Your task to perform on an android device: turn on priority inbox in the gmail app Image 0: 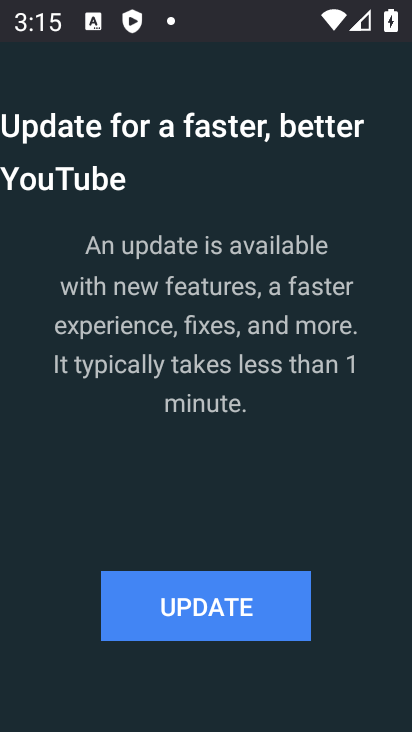
Step 0: press home button
Your task to perform on an android device: turn on priority inbox in the gmail app Image 1: 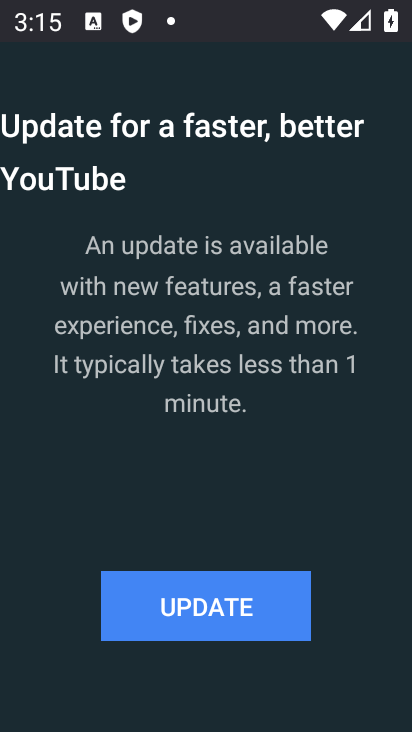
Step 1: press home button
Your task to perform on an android device: turn on priority inbox in the gmail app Image 2: 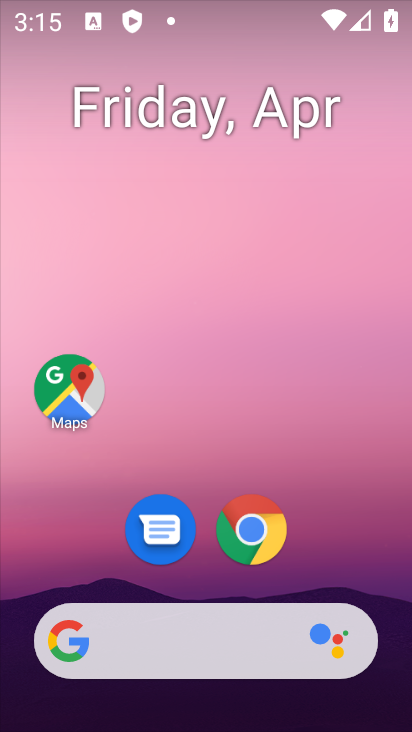
Step 2: drag from (244, 540) to (301, 95)
Your task to perform on an android device: turn on priority inbox in the gmail app Image 3: 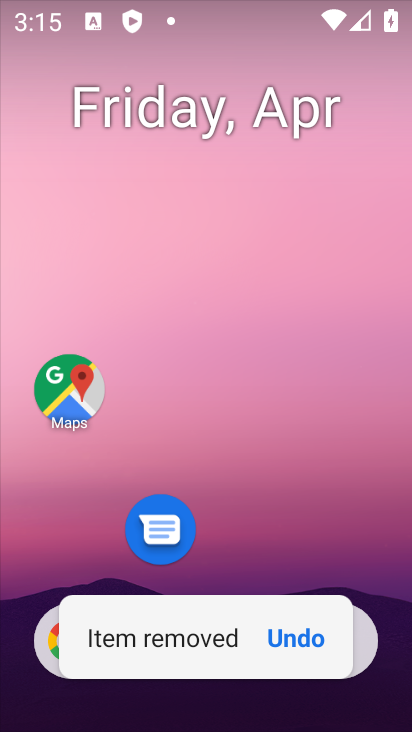
Step 3: click (282, 432)
Your task to perform on an android device: turn on priority inbox in the gmail app Image 4: 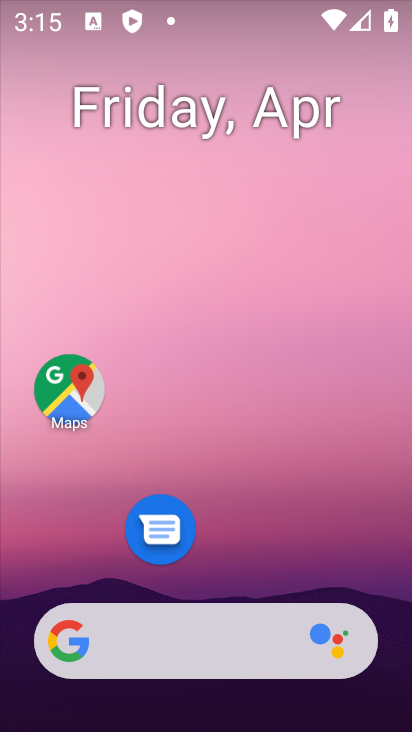
Step 4: drag from (234, 559) to (279, 112)
Your task to perform on an android device: turn on priority inbox in the gmail app Image 5: 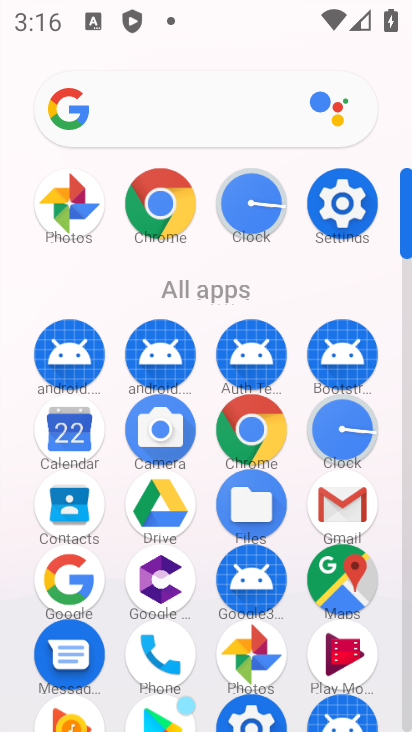
Step 5: click (349, 499)
Your task to perform on an android device: turn on priority inbox in the gmail app Image 6: 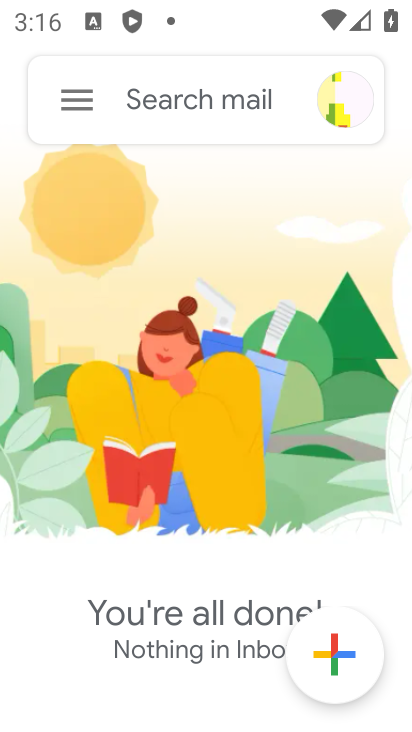
Step 6: click (82, 93)
Your task to perform on an android device: turn on priority inbox in the gmail app Image 7: 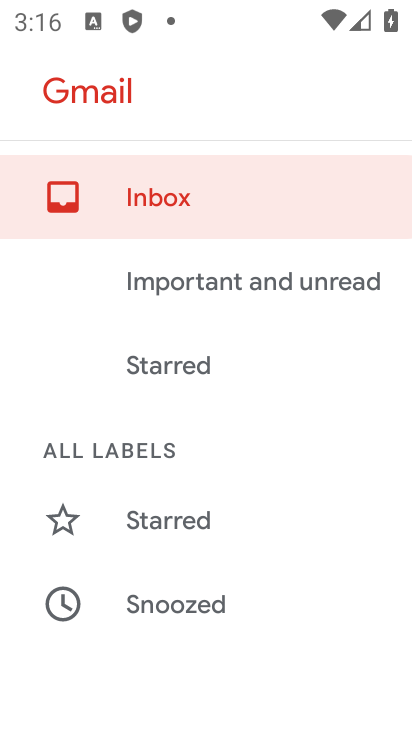
Step 7: drag from (223, 531) to (291, 278)
Your task to perform on an android device: turn on priority inbox in the gmail app Image 8: 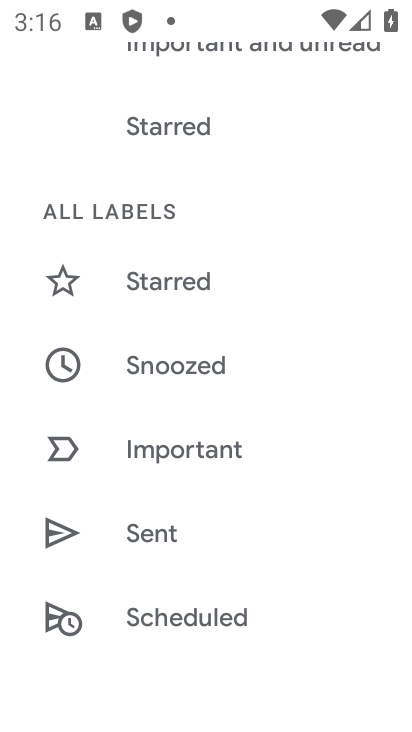
Step 8: drag from (216, 525) to (323, 24)
Your task to perform on an android device: turn on priority inbox in the gmail app Image 9: 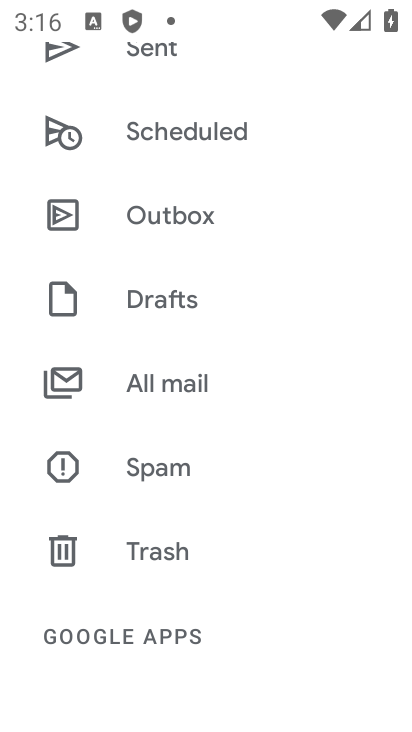
Step 9: drag from (220, 540) to (328, 91)
Your task to perform on an android device: turn on priority inbox in the gmail app Image 10: 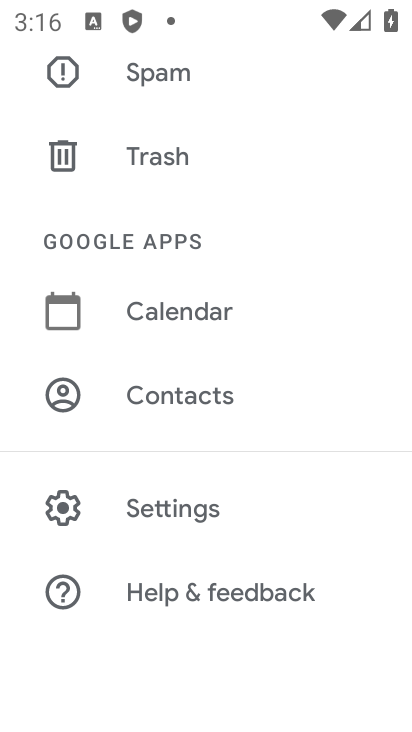
Step 10: click (200, 516)
Your task to perform on an android device: turn on priority inbox in the gmail app Image 11: 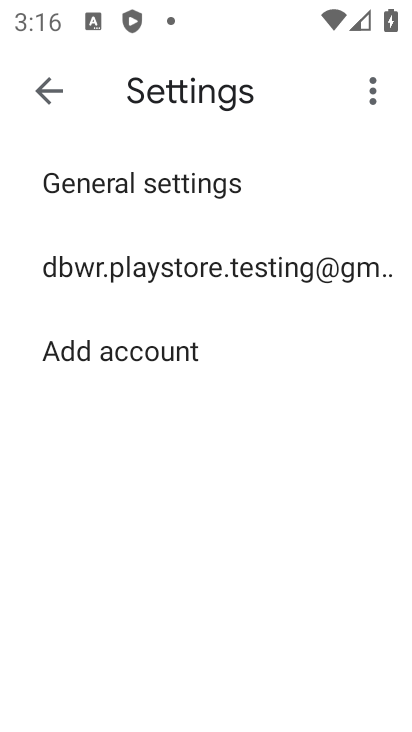
Step 11: click (225, 272)
Your task to perform on an android device: turn on priority inbox in the gmail app Image 12: 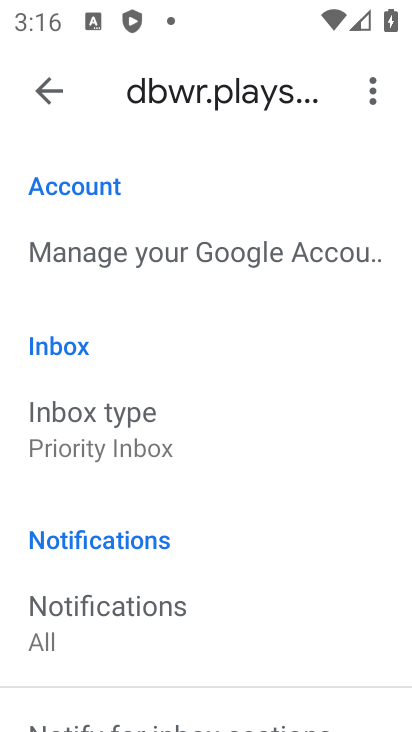
Step 12: click (156, 433)
Your task to perform on an android device: turn on priority inbox in the gmail app Image 13: 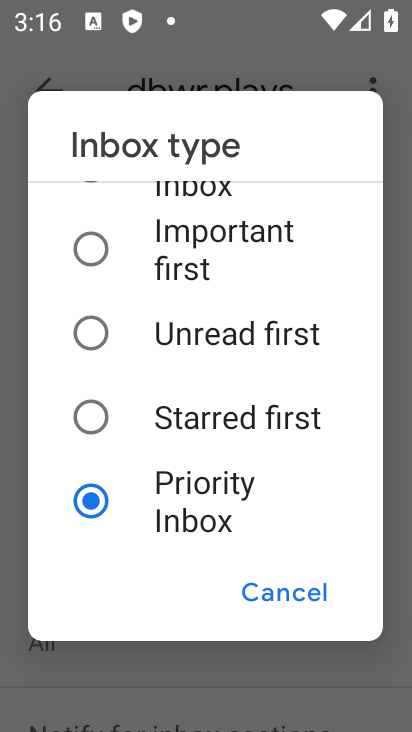
Step 13: task complete